Your task to perform on an android device: Open the stopwatch Image 0: 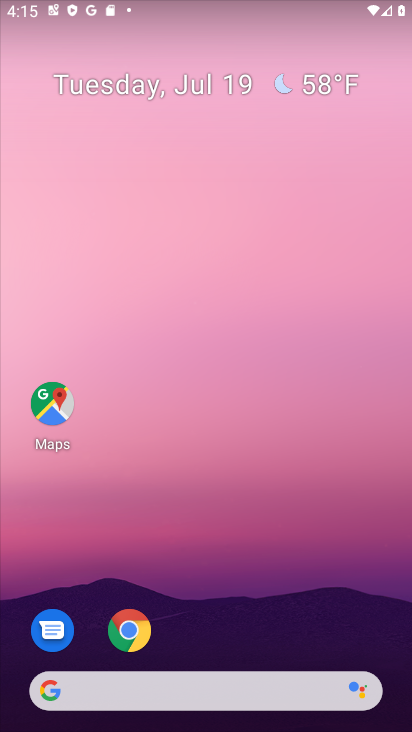
Step 0: press home button
Your task to perform on an android device: Open the stopwatch Image 1: 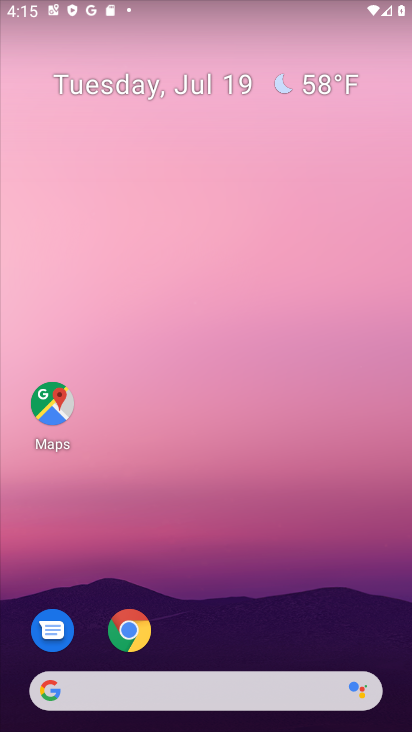
Step 1: click (280, 158)
Your task to perform on an android device: Open the stopwatch Image 2: 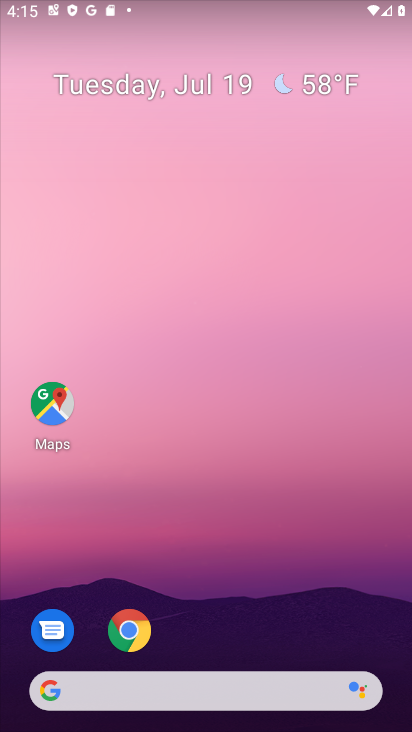
Step 2: drag from (265, 565) to (325, 68)
Your task to perform on an android device: Open the stopwatch Image 3: 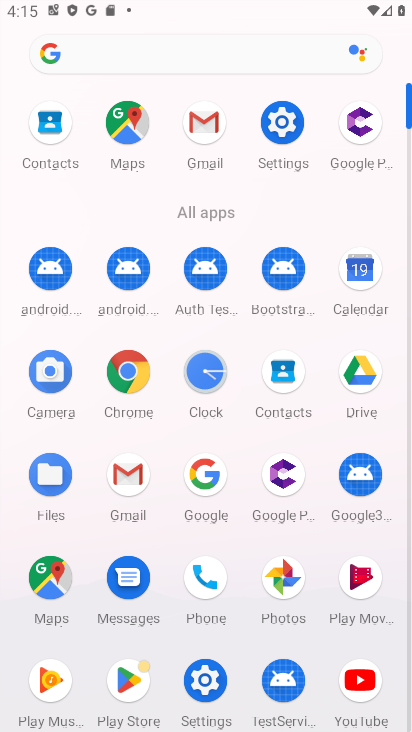
Step 3: click (204, 386)
Your task to perform on an android device: Open the stopwatch Image 4: 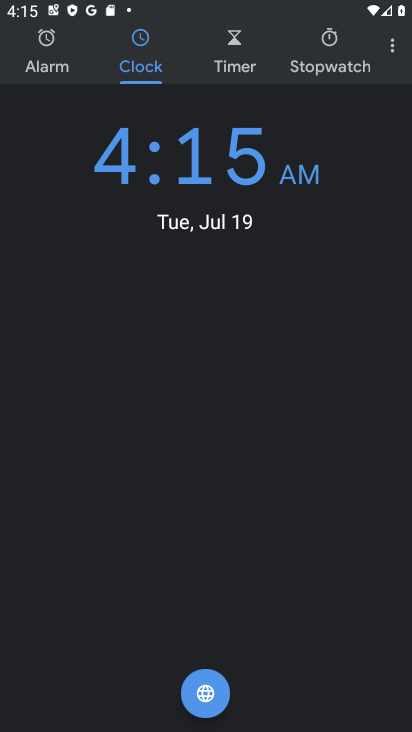
Step 4: click (320, 33)
Your task to perform on an android device: Open the stopwatch Image 5: 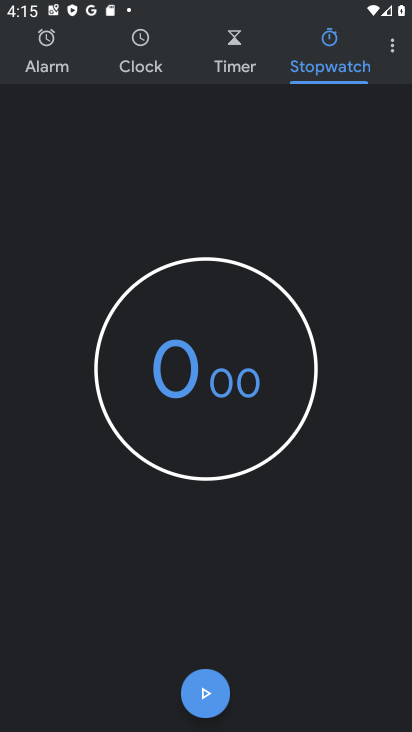
Step 5: task complete